Your task to perform on an android device: change alarm snooze length Image 0: 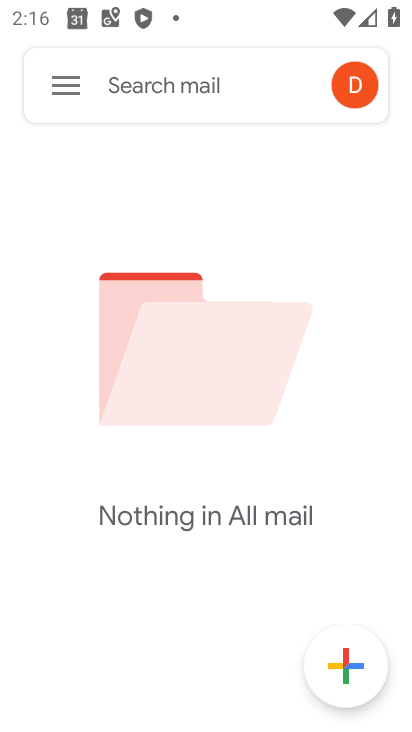
Step 0: press home button
Your task to perform on an android device: change alarm snooze length Image 1: 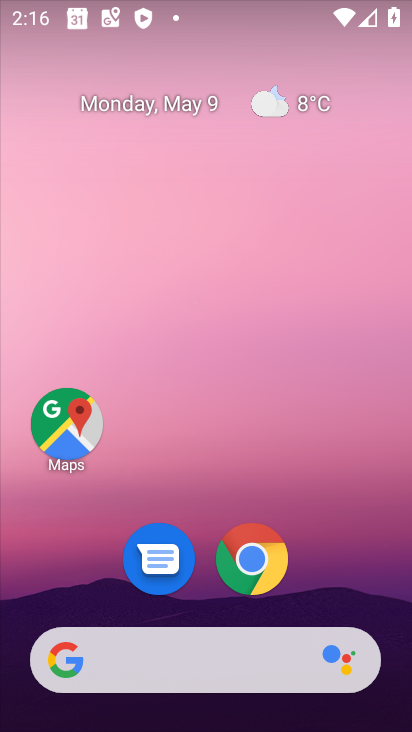
Step 1: drag from (312, 507) to (232, 28)
Your task to perform on an android device: change alarm snooze length Image 2: 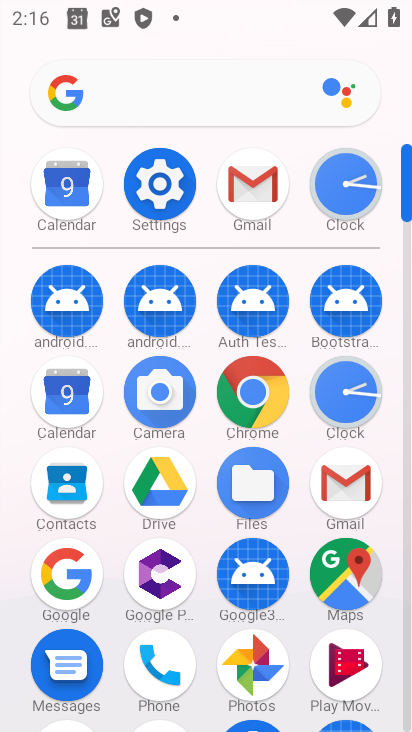
Step 2: click (335, 183)
Your task to perform on an android device: change alarm snooze length Image 3: 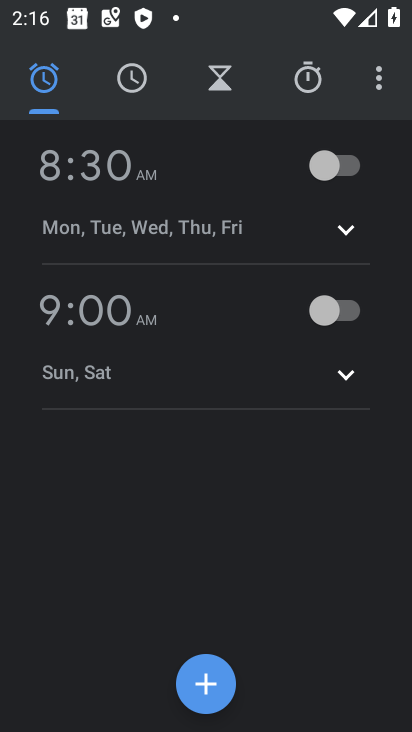
Step 3: click (378, 80)
Your task to perform on an android device: change alarm snooze length Image 4: 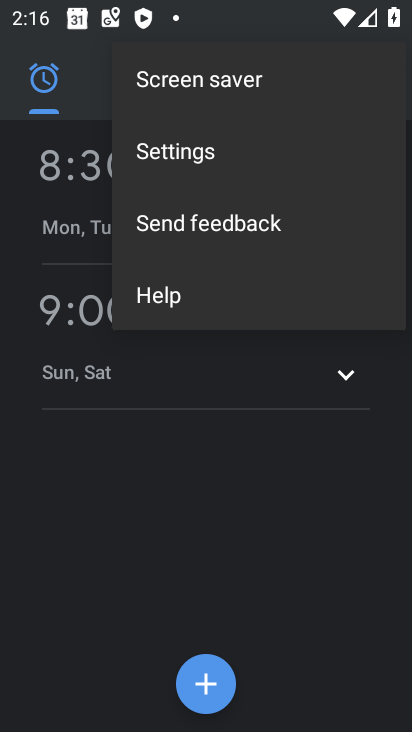
Step 4: click (195, 151)
Your task to perform on an android device: change alarm snooze length Image 5: 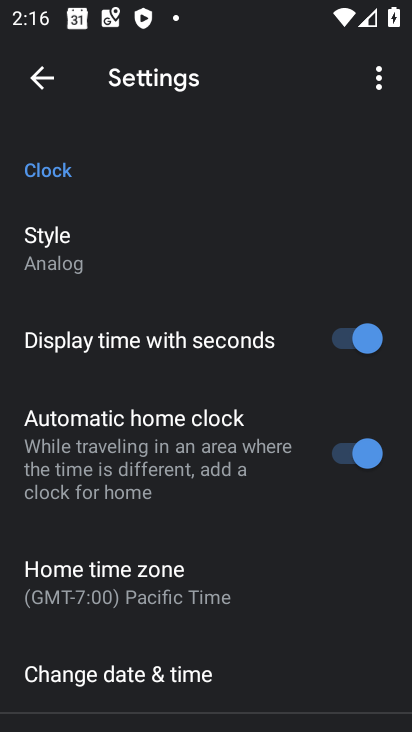
Step 5: drag from (211, 617) to (195, 228)
Your task to perform on an android device: change alarm snooze length Image 6: 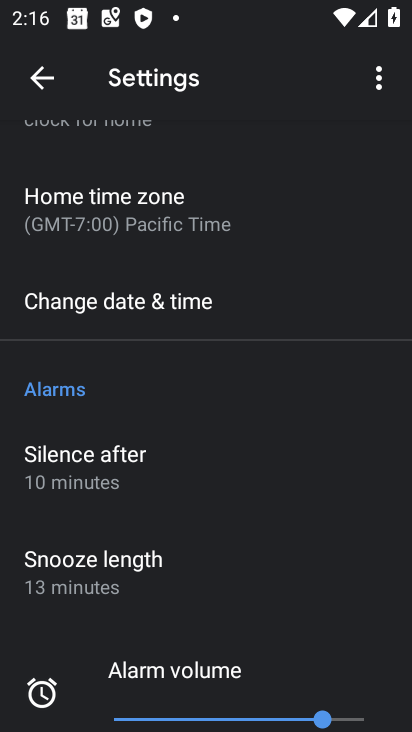
Step 6: click (83, 700)
Your task to perform on an android device: change alarm snooze length Image 7: 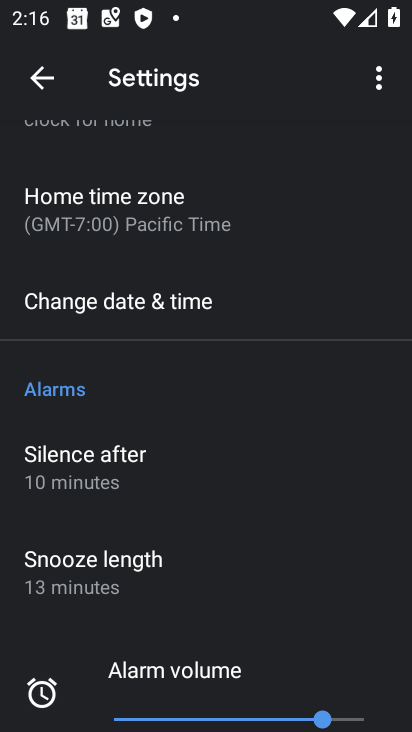
Step 7: click (84, 565)
Your task to perform on an android device: change alarm snooze length Image 8: 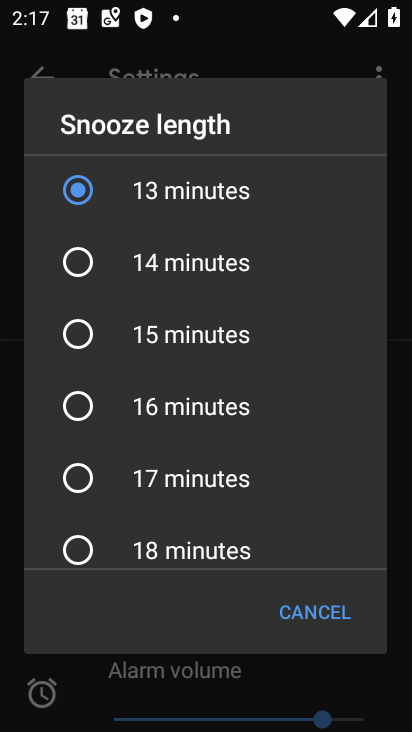
Step 8: click (76, 273)
Your task to perform on an android device: change alarm snooze length Image 9: 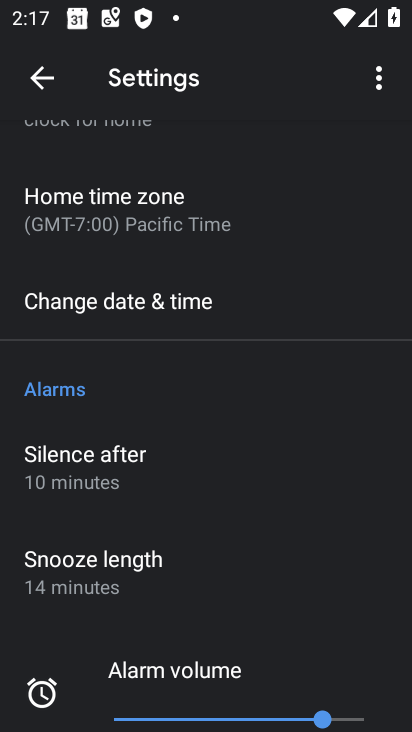
Step 9: task complete